Your task to perform on an android device: clear all cookies in the chrome app Image 0: 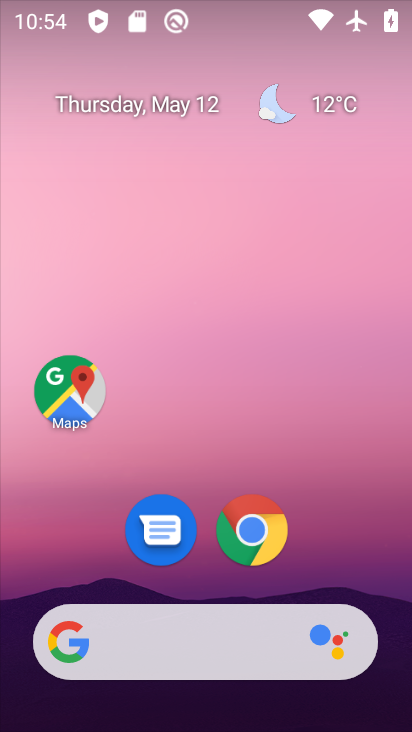
Step 0: click (249, 540)
Your task to perform on an android device: clear all cookies in the chrome app Image 1: 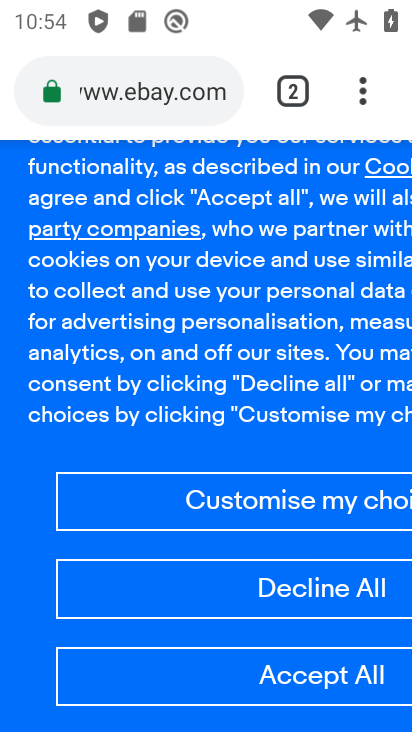
Step 1: drag from (365, 99) to (245, 565)
Your task to perform on an android device: clear all cookies in the chrome app Image 2: 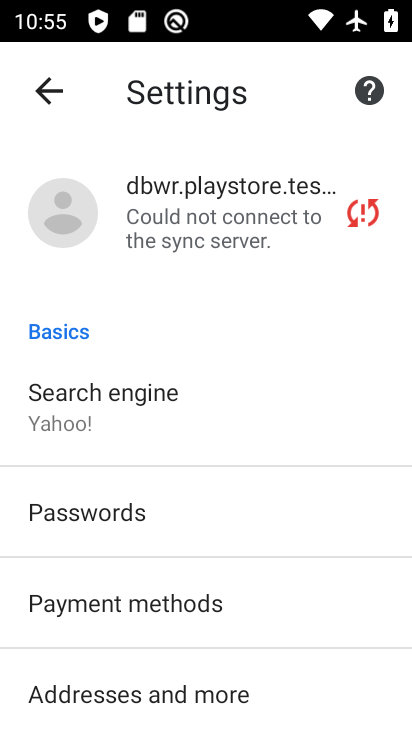
Step 2: drag from (223, 666) to (382, 217)
Your task to perform on an android device: clear all cookies in the chrome app Image 3: 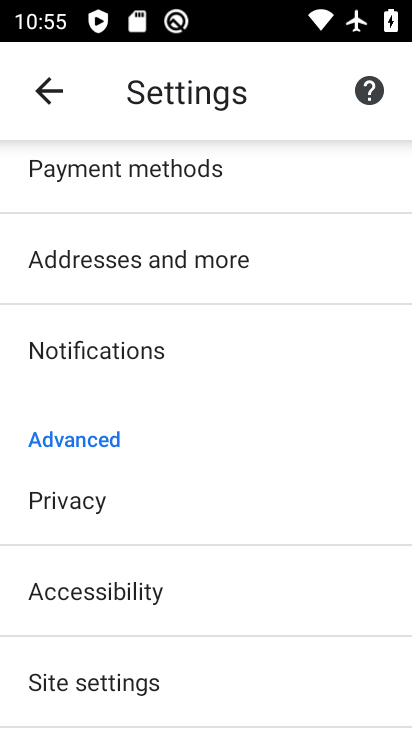
Step 3: click (100, 498)
Your task to perform on an android device: clear all cookies in the chrome app Image 4: 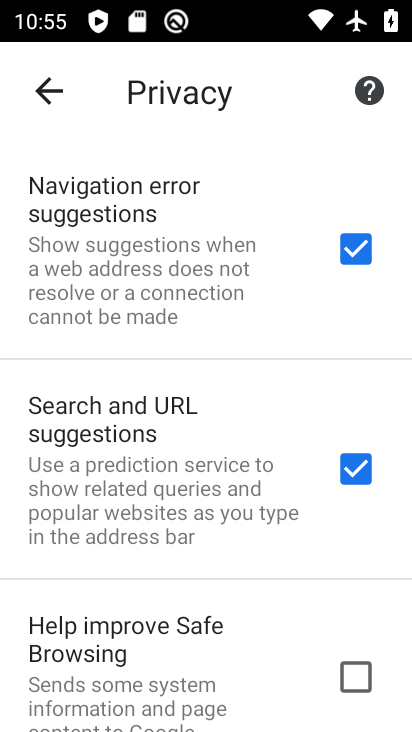
Step 4: drag from (148, 636) to (275, 239)
Your task to perform on an android device: clear all cookies in the chrome app Image 5: 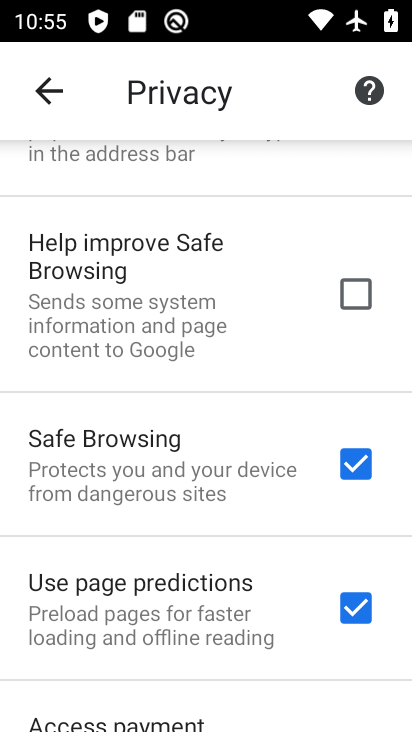
Step 5: drag from (174, 604) to (272, 269)
Your task to perform on an android device: clear all cookies in the chrome app Image 6: 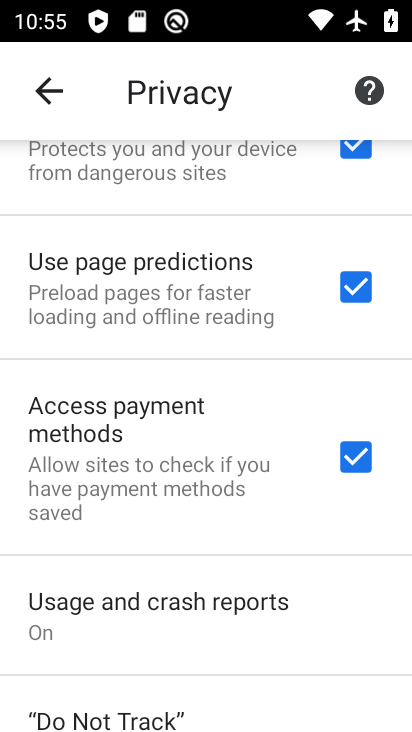
Step 6: drag from (88, 631) to (361, 86)
Your task to perform on an android device: clear all cookies in the chrome app Image 7: 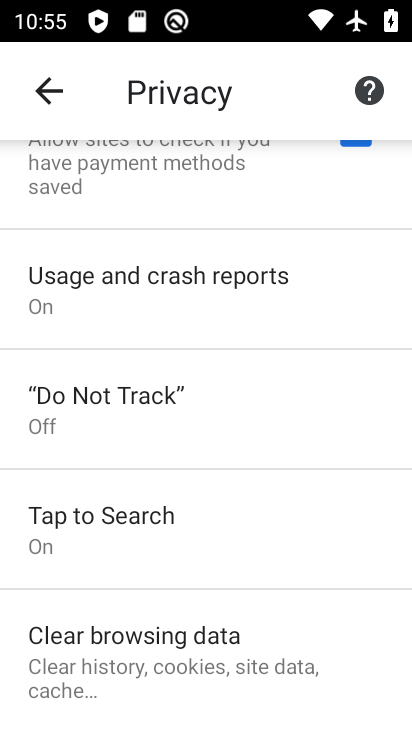
Step 7: click (93, 663)
Your task to perform on an android device: clear all cookies in the chrome app Image 8: 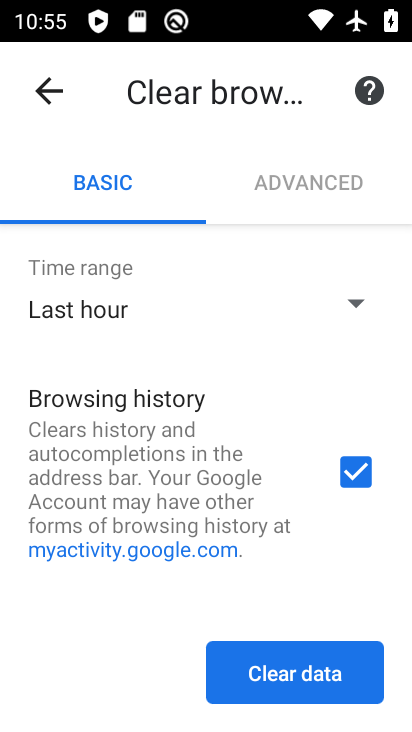
Step 8: click (348, 479)
Your task to perform on an android device: clear all cookies in the chrome app Image 9: 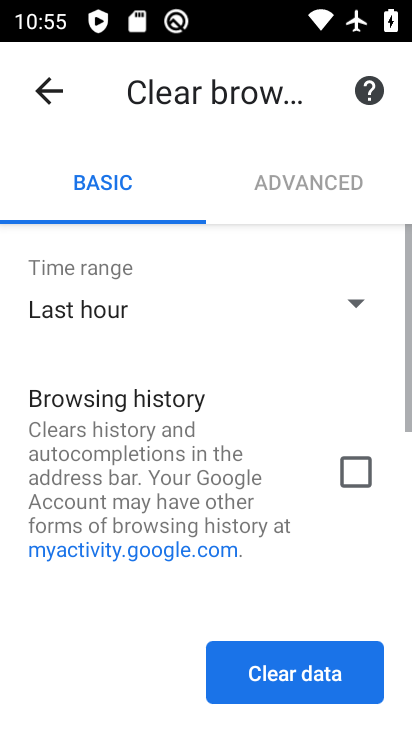
Step 9: drag from (200, 556) to (304, 222)
Your task to perform on an android device: clear all cookies in the chrome app Image 10: 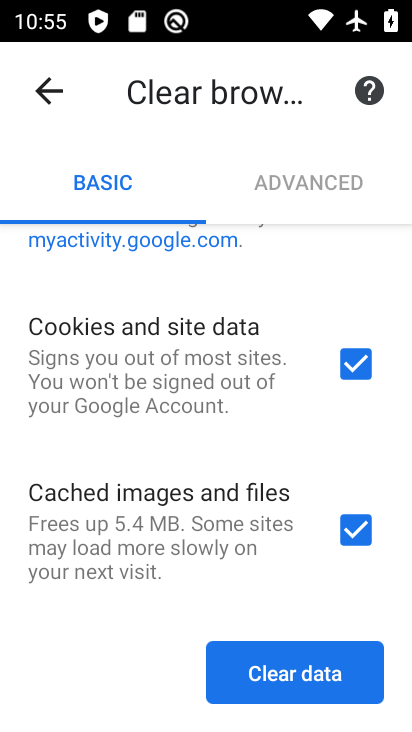
Step 10: click (360, 532)
Your task to perform on an android device: clear all cookies in the chrome app Image 11: 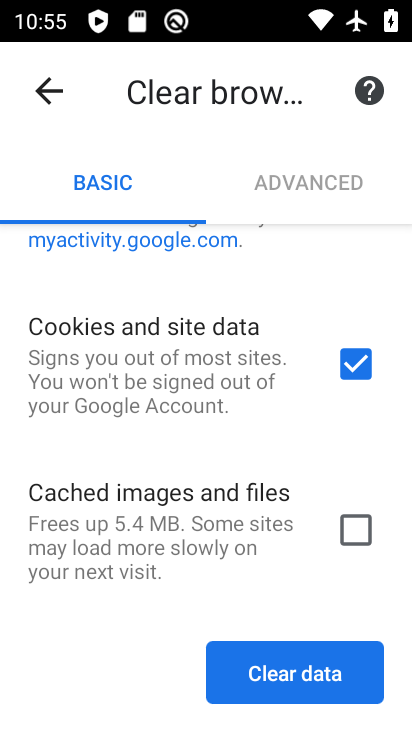
Step 11: click (270, 674)
Your task to perform on an android device: clear all cookies in the chrome app Image 12: 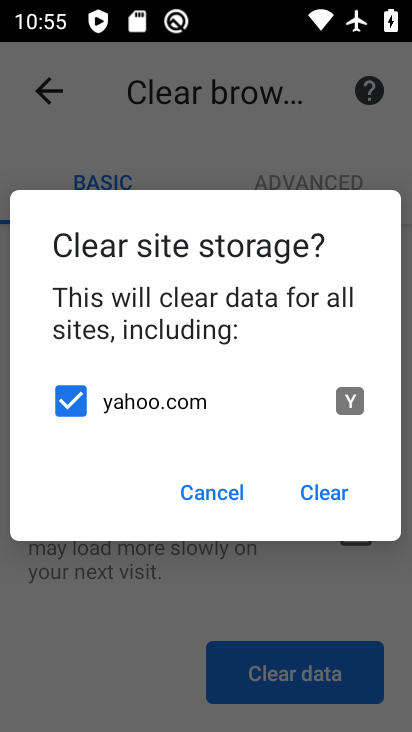
Step 12: click (323, 491)
Your task to perform on an android device: clear all cookies in the chrome app Image 13: 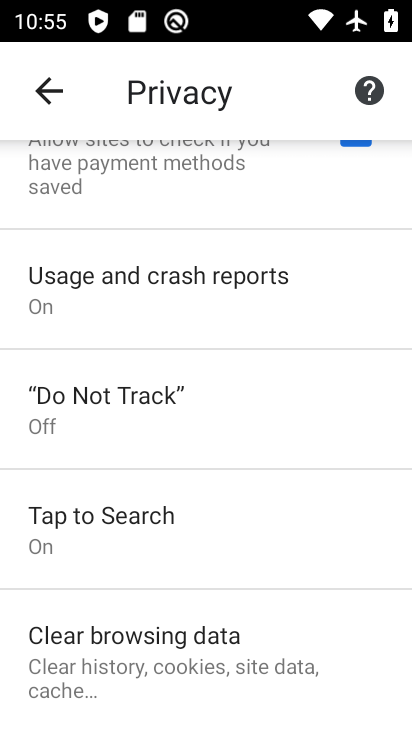
Step 13: task complete